Your task to perform on an android device: Go to accessibility settings Image 0: 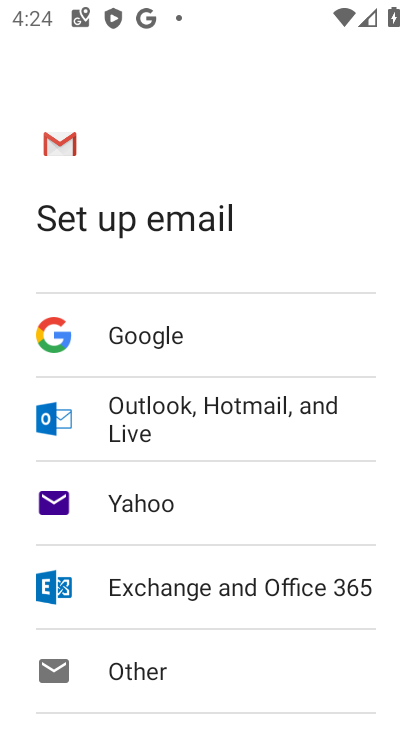
Step 0: press back button
Your task to perform on an android device: Go to accessibility settings Image 1: 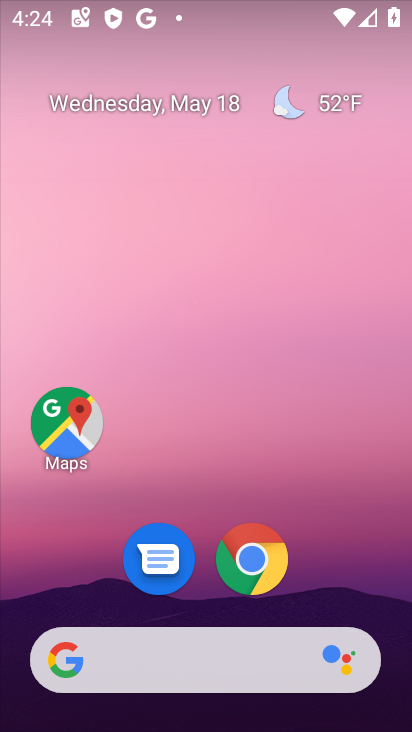
Step 1: drag from (182, 532) to (188, 59)
Your task to perform on an android device: Go to accessibility settings Image 2: 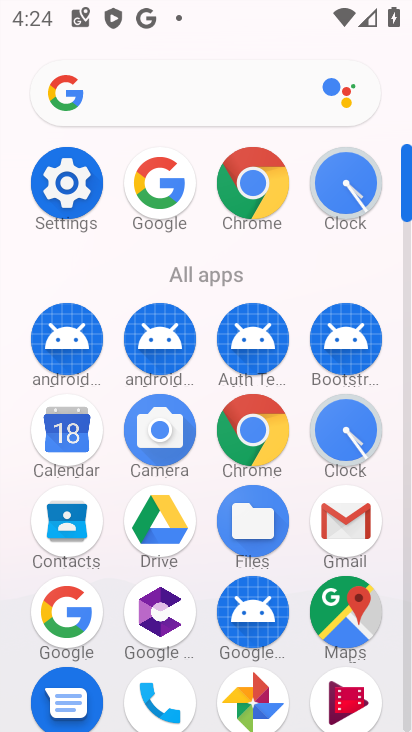
Step 2: click (67, 173)
Your task to perform on an android device: Go to accessibility settings Image 3: 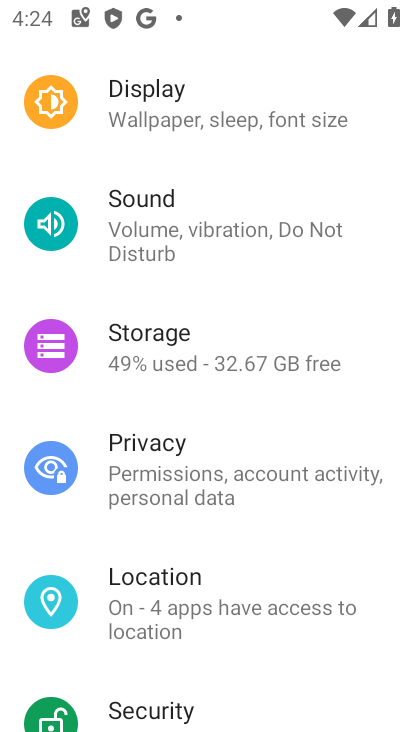
Step 3: drag from (210, 636) to (286, 77)
Your task to perform on an android device: Go to accessibility settings Image 4: 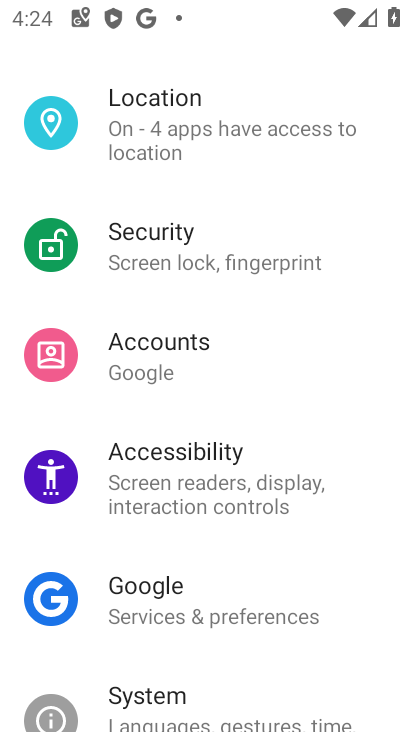
Step 4: click (168, 486)
Your task to perform on an android device: Go to accessibility settings Image 5: 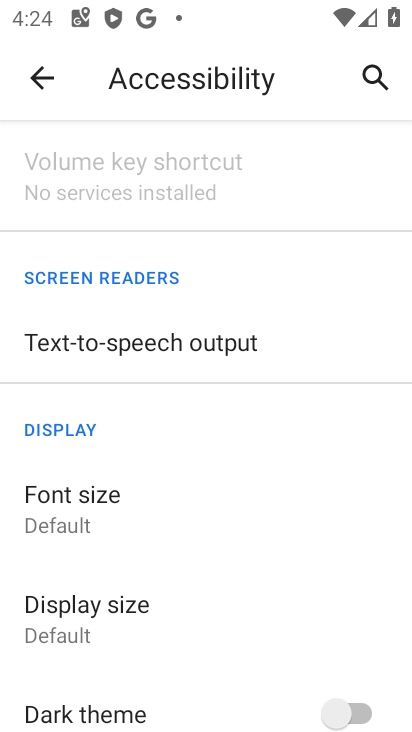
Step 5: task complete